Your task to perform on an android device: uninstall "ZOOM Cloud Meetings" Image 0: 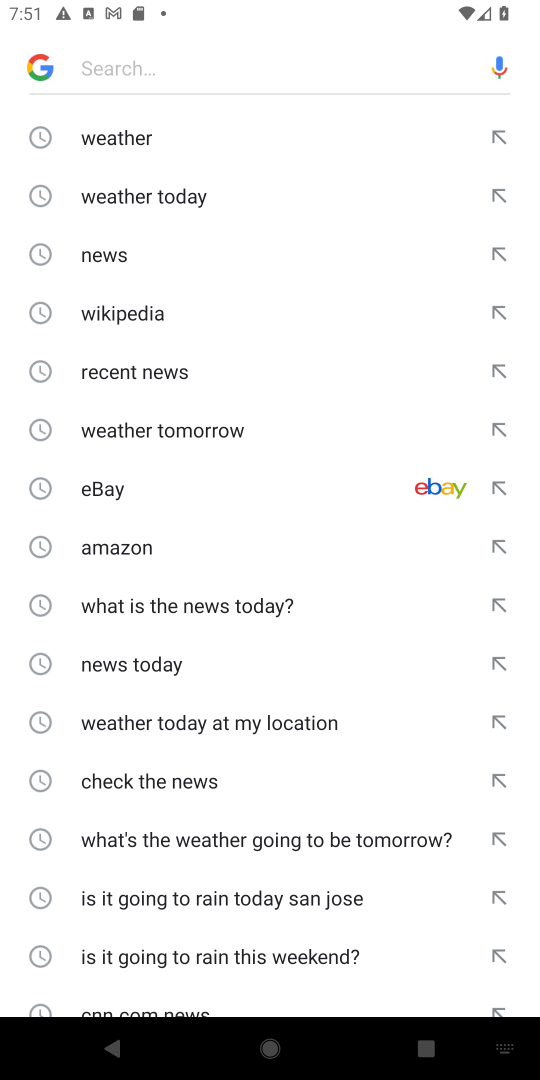
Step 0: press home button
Your task to perform on an android device: uninstall "ZOOM Cloud Meetings" Image 1: 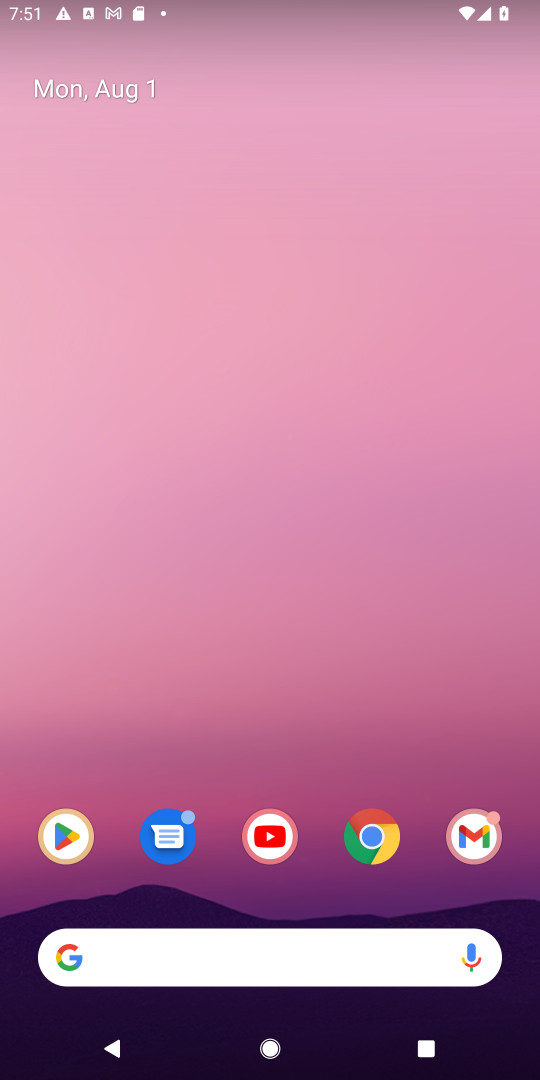
Step 1: click (71, 843)
Your task to perform on an android device: uninstall "ZOOM Cloud Meetings" Image 2: 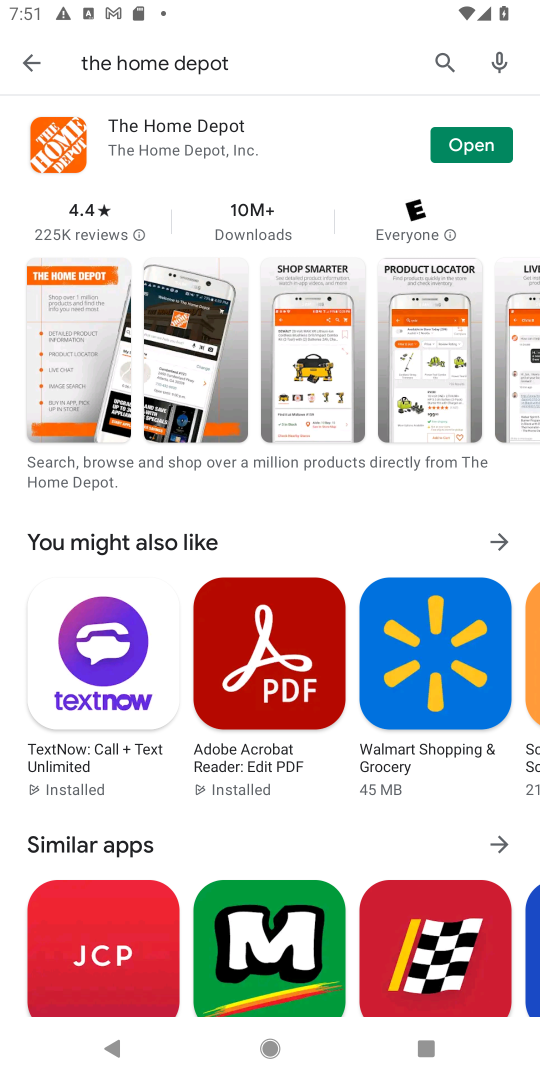
Step 2: click (440, 60)
Your task to perform on an android device: uninstall "ZOOM Cloud Meetings" Image 3: 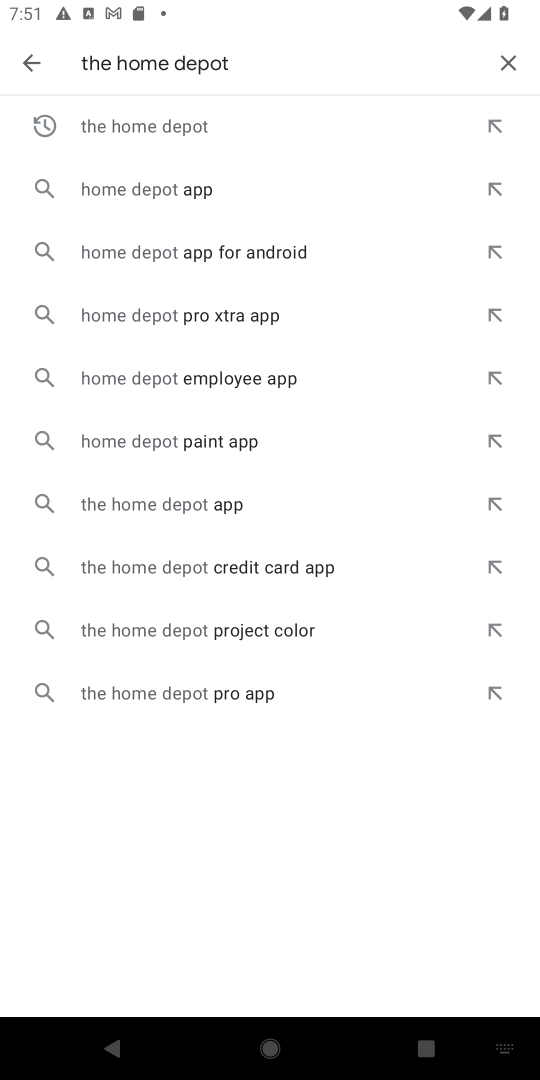
Step 3: click (509, 57)
Your task to perform on an android device: uninstall "ZOOM Cloud Meetings" Image 4: 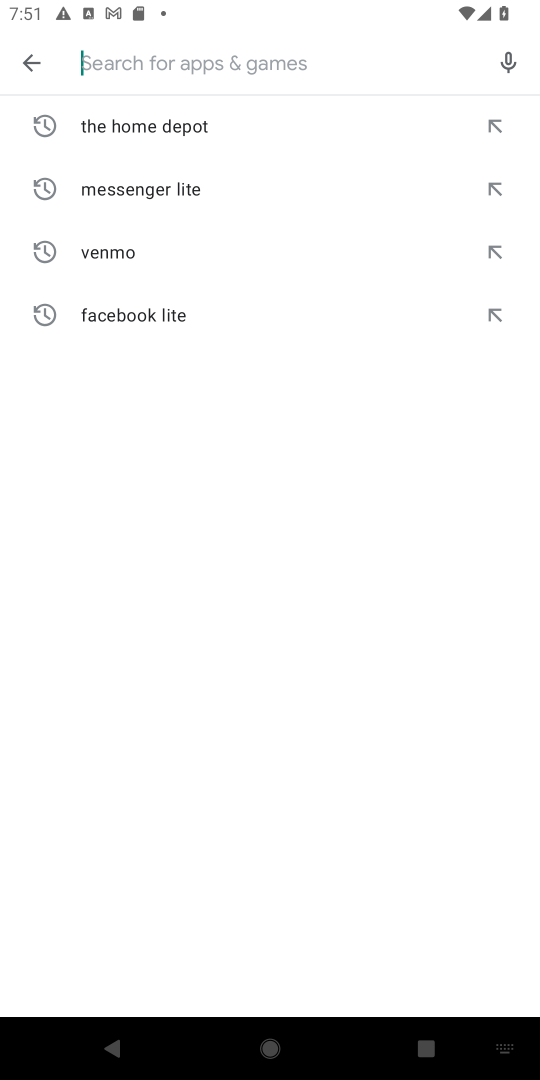
Step 4: type "ZOOM Cloud Meetings"
Your task to perform on an android device: uninstall "ZOOM Cloud Meetings" Image 5: 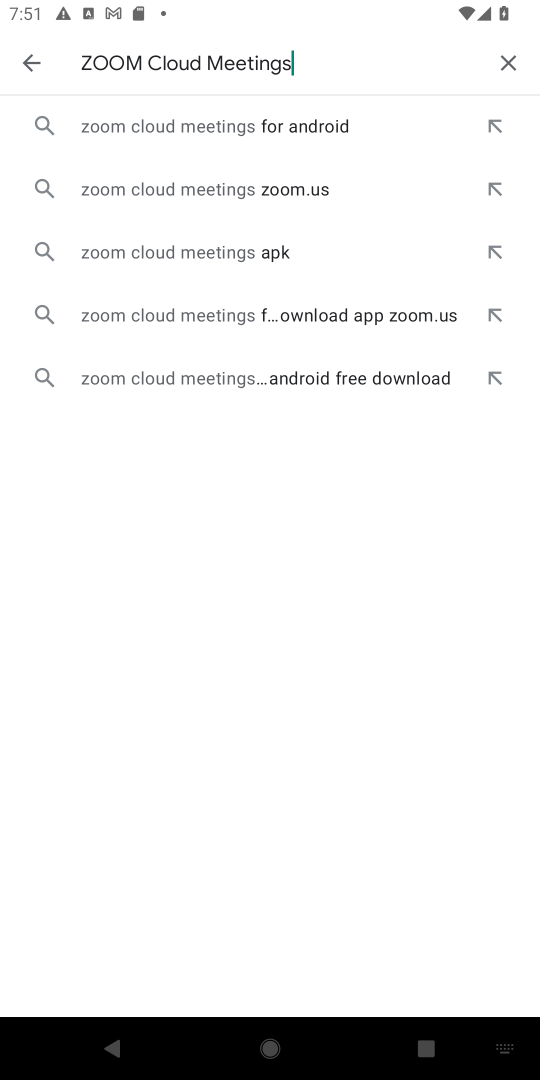
Step 5: click (222, 125)
Your task to perform on an android device: uninstall "ZOOM Cloud Meetings" Image 6: 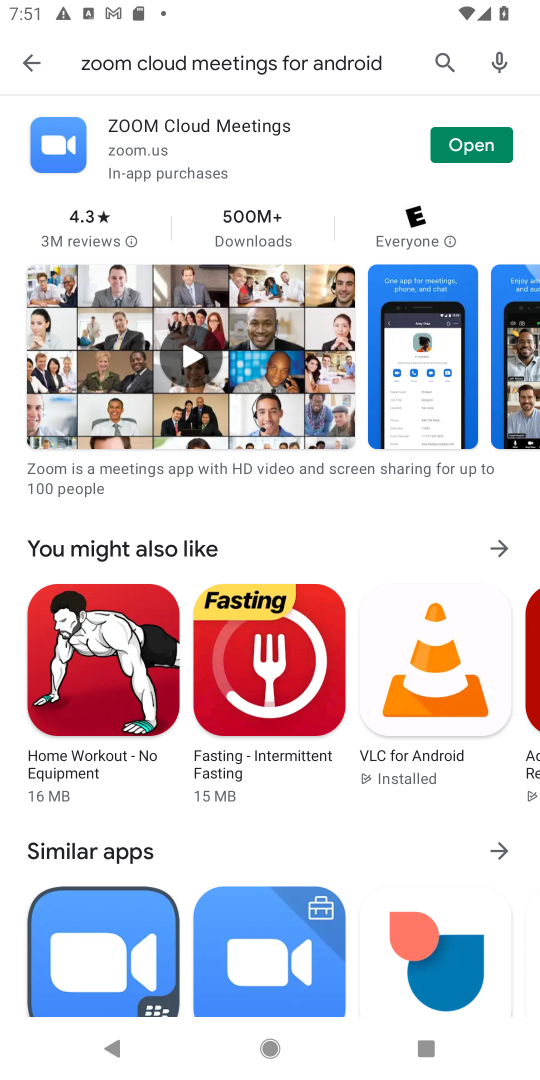
Step 6: click (147, 136)
Your task to perform on an android device: uninstall "ZOOM Cloud Meetings" Image 7: 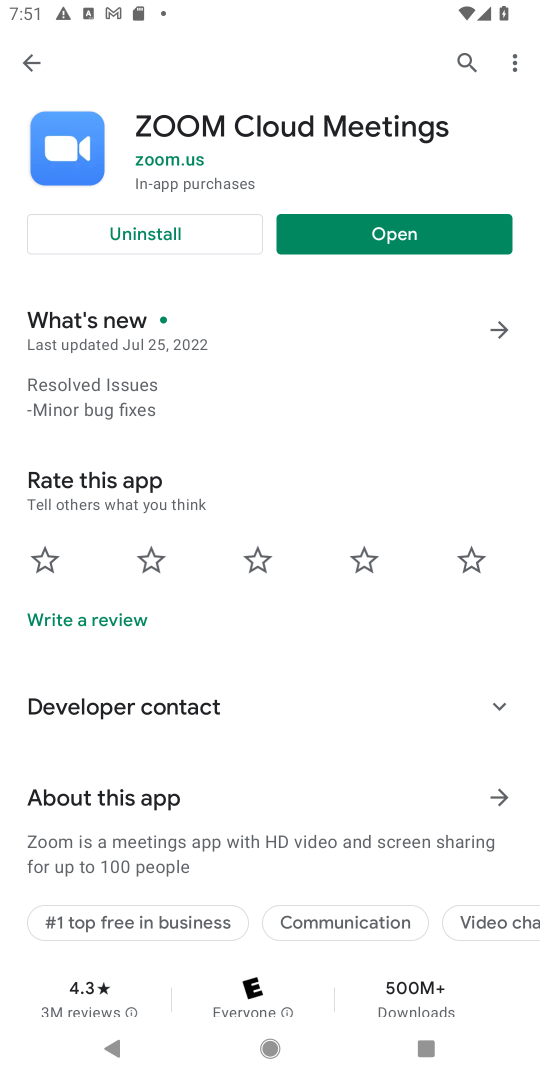
Step 7: click (184, 237)
Your task to perform on an android device: uninstall "ZOOM Cloud Meetings" Image 8: 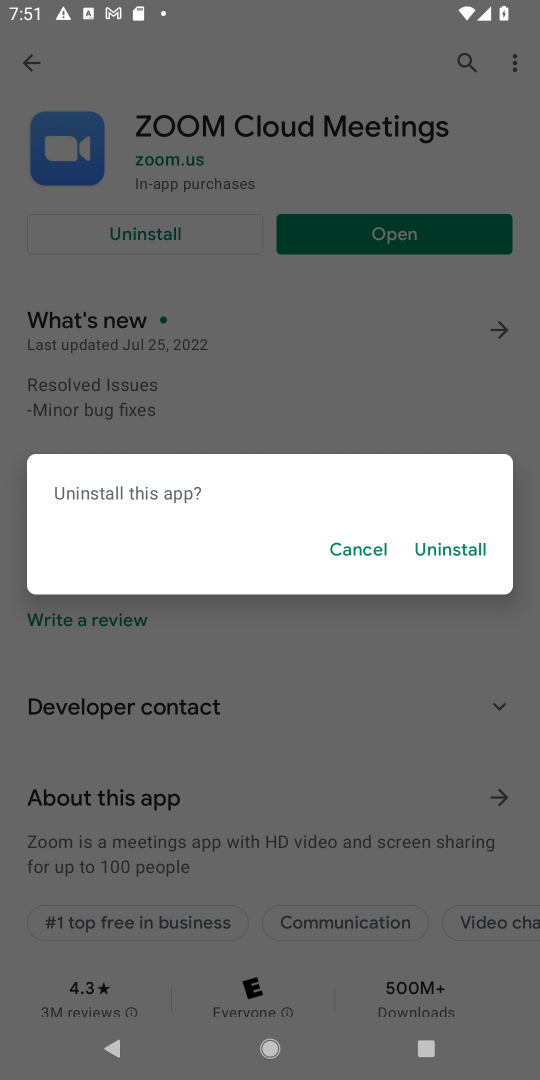
Step 8: click (478, 546)
Your task to perform on an android device: uninstall "ZOOM Cloud Meetings" Image 9: 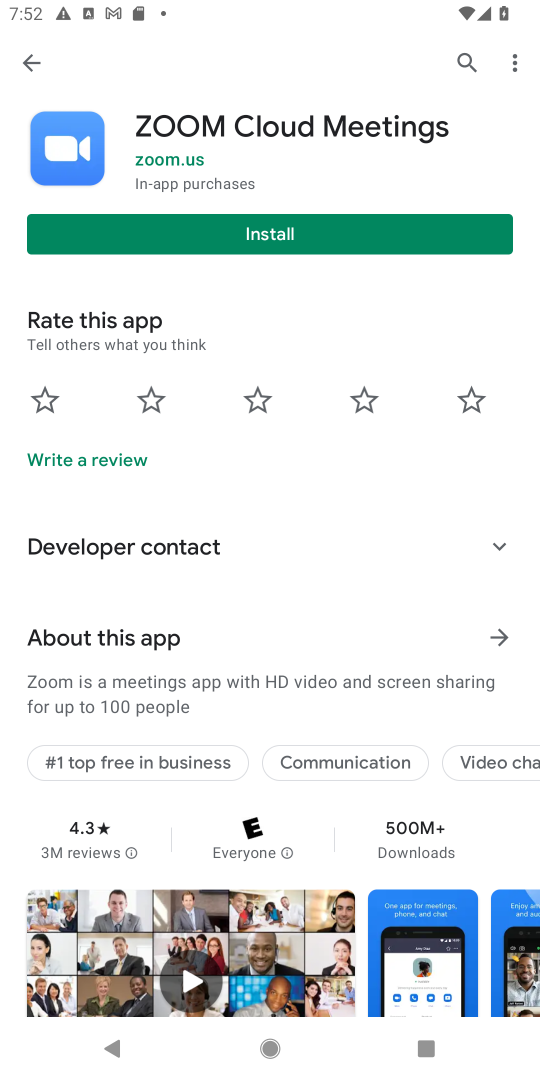
Step 9: task complete